Your task to perform on an android device: Open the map Image 0: 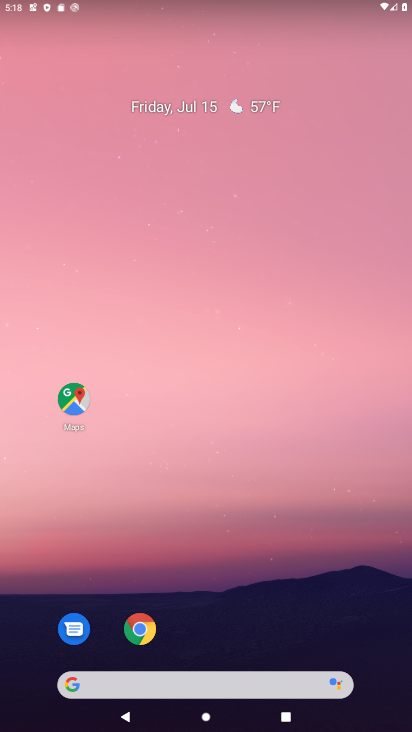
Step 0: press home button
Your task to perform on an android device: Open the map Image 1: 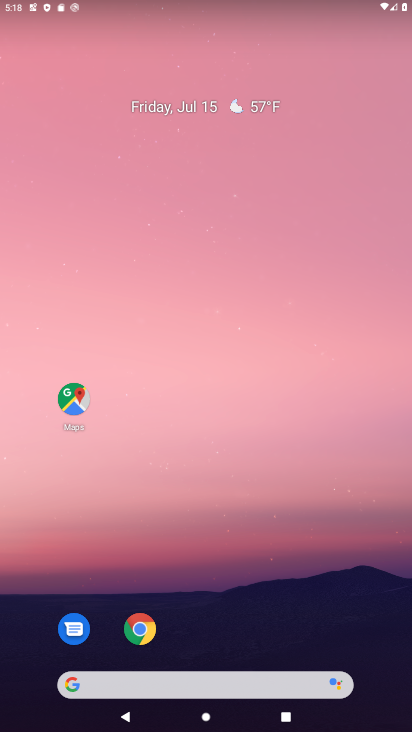
Step 1: click (67, 395)
Your task to perform on an android device: Open the map Image 2: 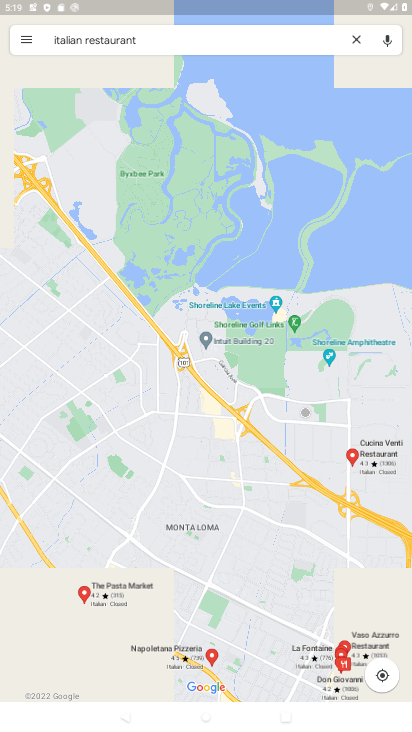
Step 2: click (355, 38)
Your task to perform on an android device: Open the map Image 3: 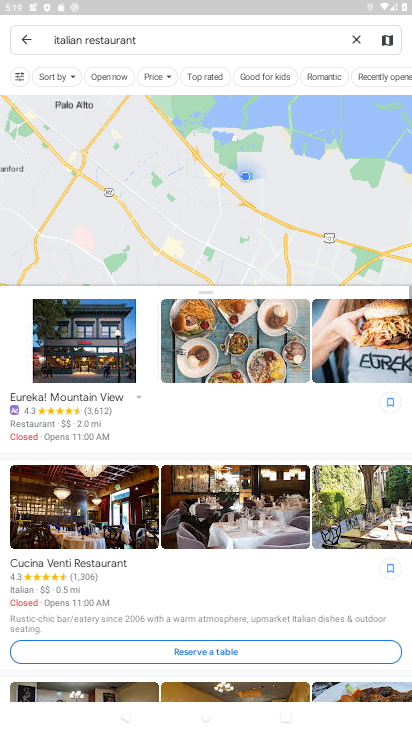
Step 3: click (357, 38)
Your task to perform on an android device: Open the map Image 4: 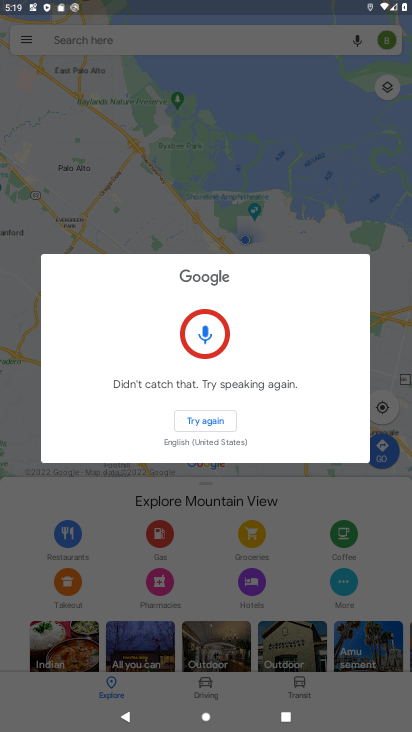
Step 4: task complete